Your task to perform on an android device: move a message to another label in the gmail app Image 0: 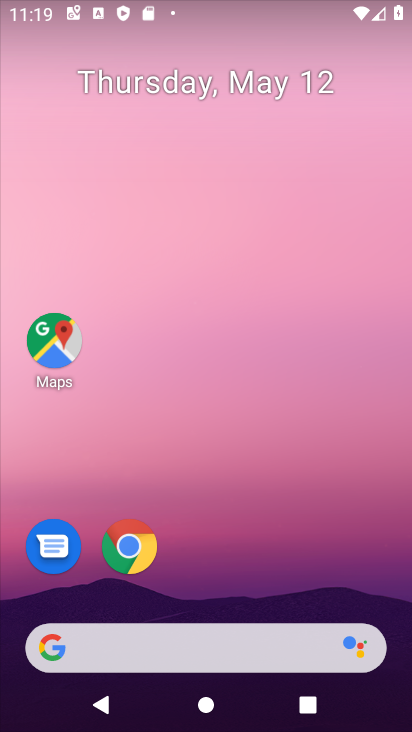
Step 0: drag from (247, 670) to (179, 97)
Your task to perform on an android device: move a message to another label in the gmail app Image 1: 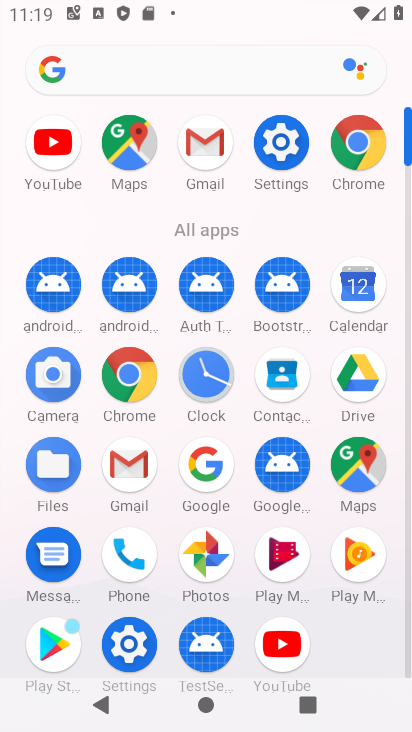
Step 1: click (207, 146)
Your task to perform on an android device: move a message to another label in the gmail app Image 2: 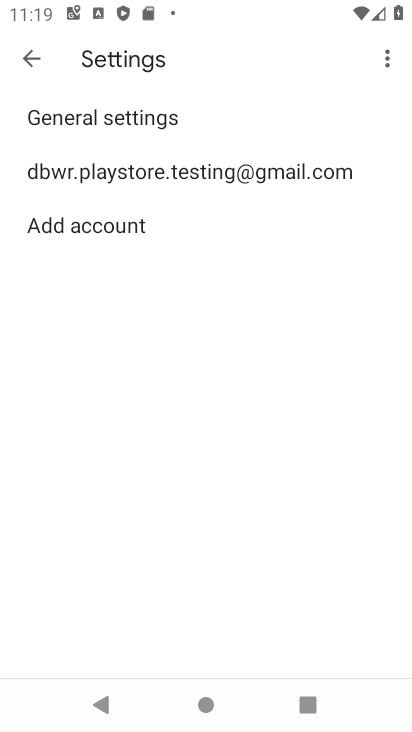
Step 2: click (180, 176)
Your task to perform on an android device: move a message to another label in the gmail app Image 3: 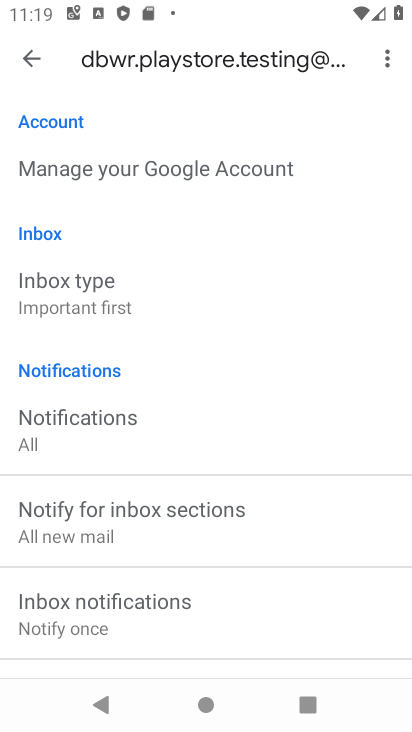
Step 3: drag from (144, 522) to (152, 392)
Your task to perform on an android device: move a message to another label in the gmail app Image 4: 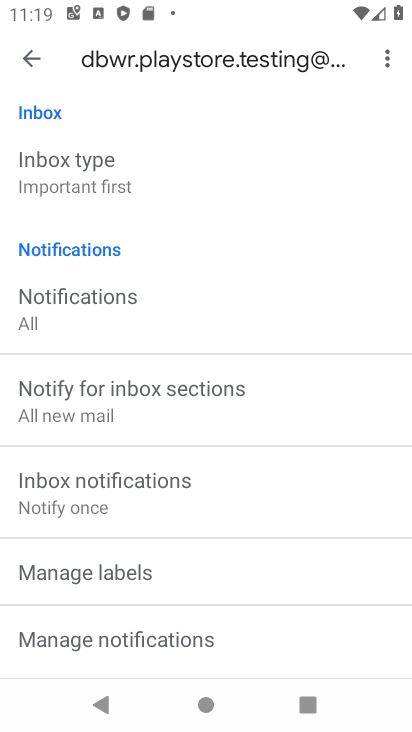
Step 4: click (131, 562)
Your task to perform on an android device: move a message to another label in the gmail app Image 5: 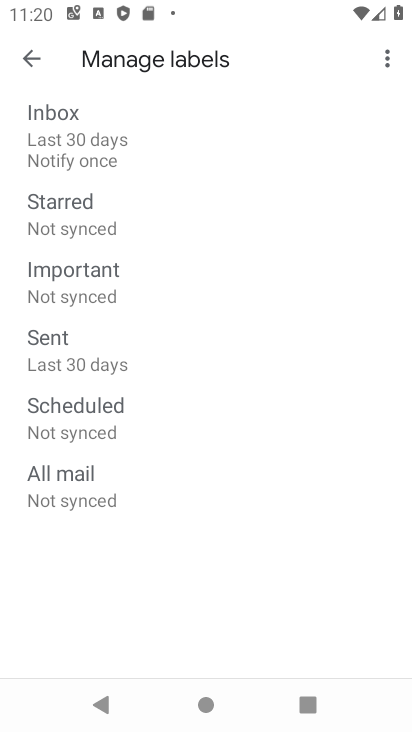
Step 5: click (107, 221)
Your task to perform on an android device: move a message to another label in the gmail app Image 6: 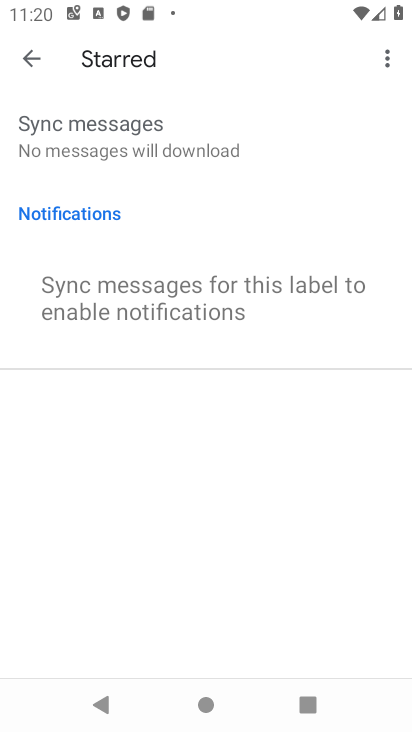
Step 6: task complete